Your task to perform on an android device: uninstall "Paramount+ | Peak Streaming" Image 0: 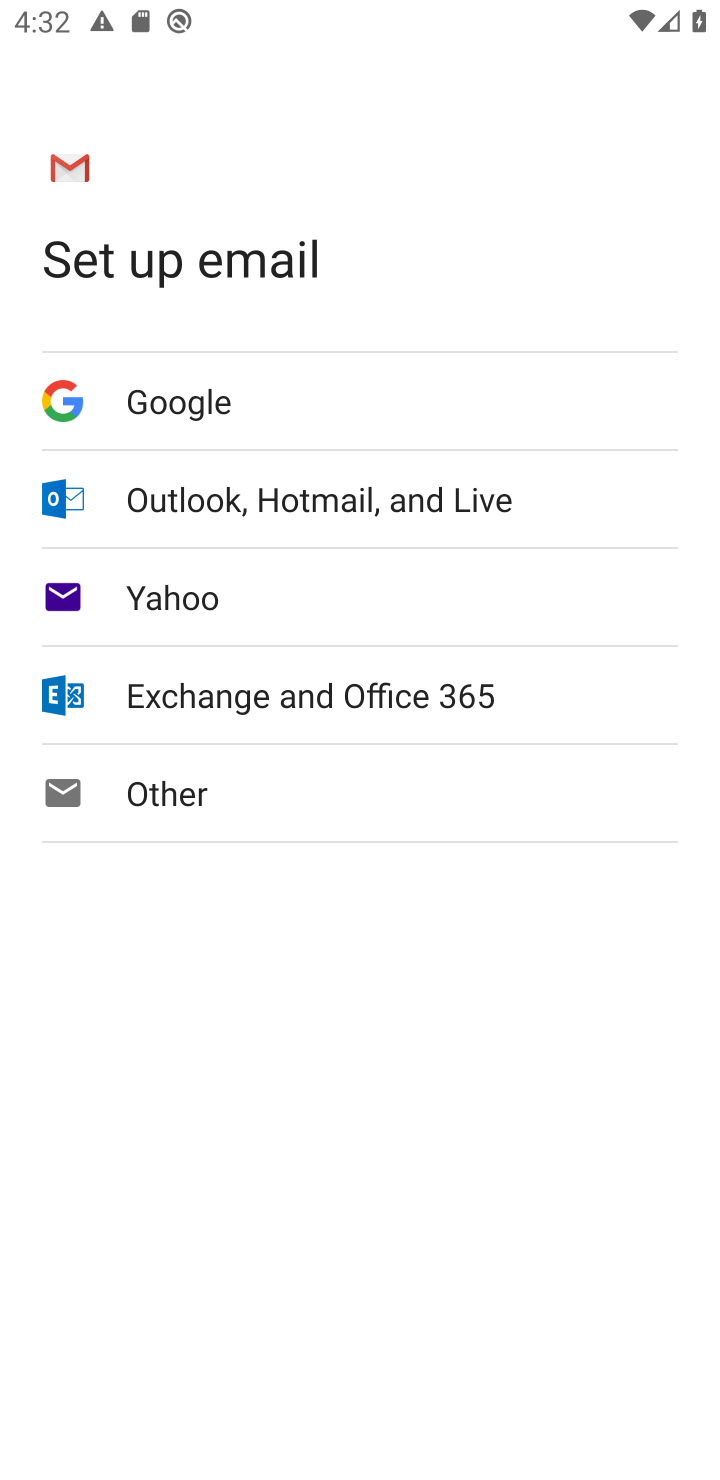
Step 0: press back button
Your task to perform on an android device: uninstall "Paramount+ | Peak Streaming" Image 1: 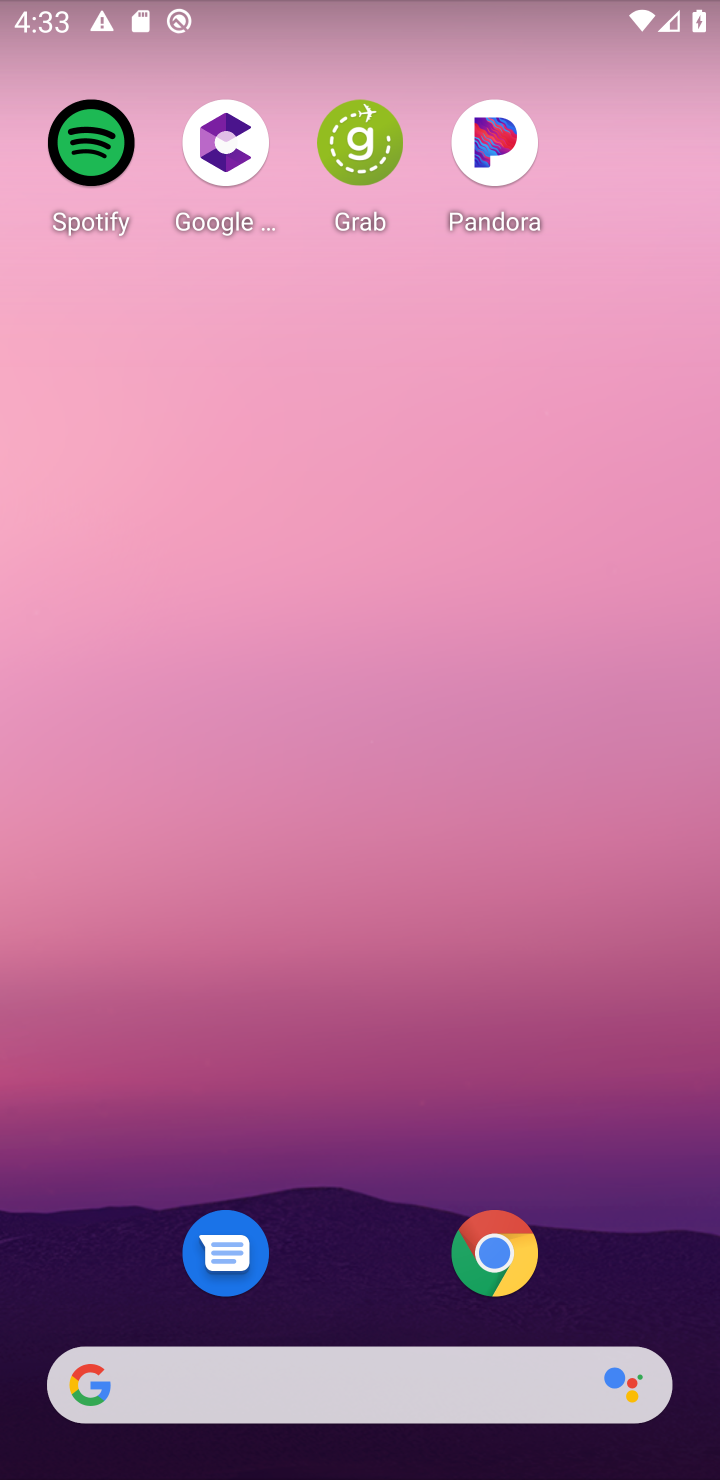
Step 1: drag from (354, 1279) to (525, 230)
Your task to perform on an android device: uninstall "Paramount+ | Peak Streaming" Image 2: 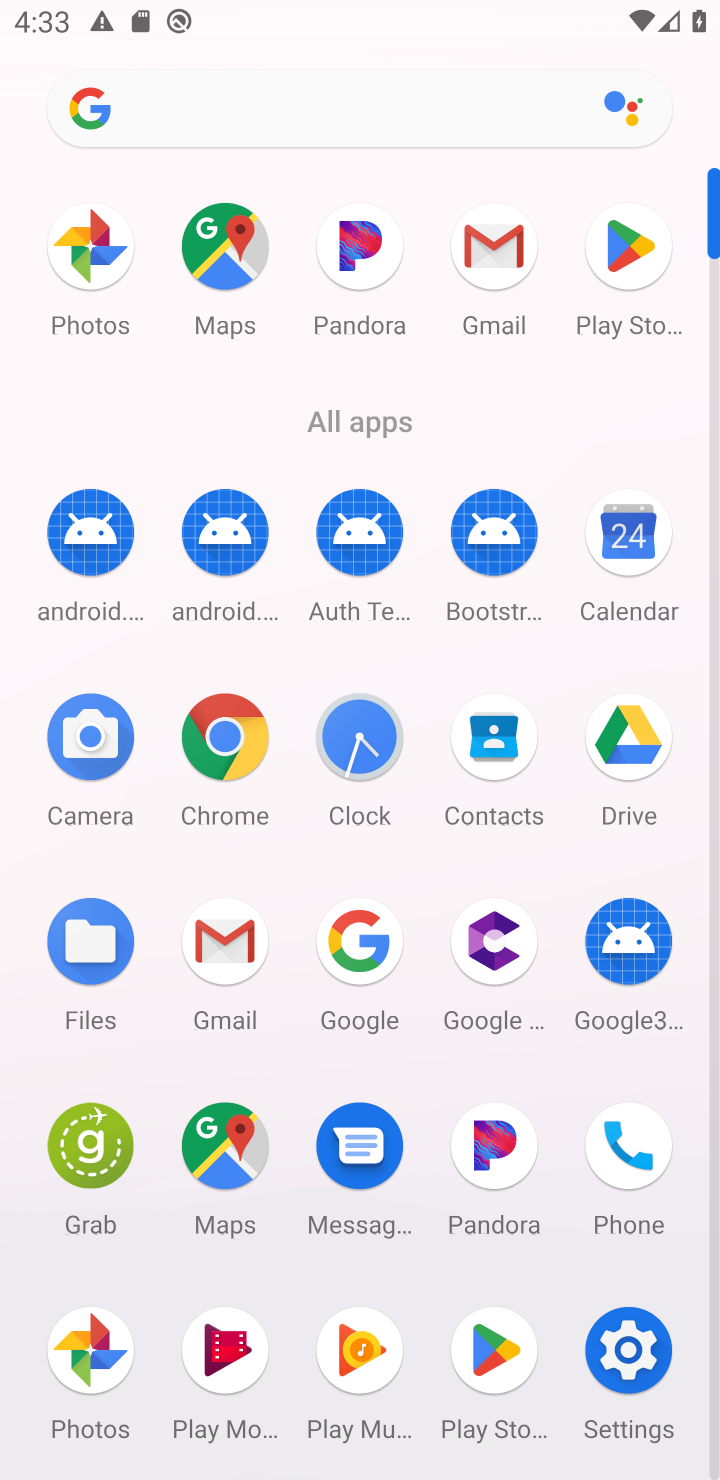
Step 2: click (620, 245)
Your task to perform on an android device: uninstall "Paramount+ | Peak Streaming" Image 3: 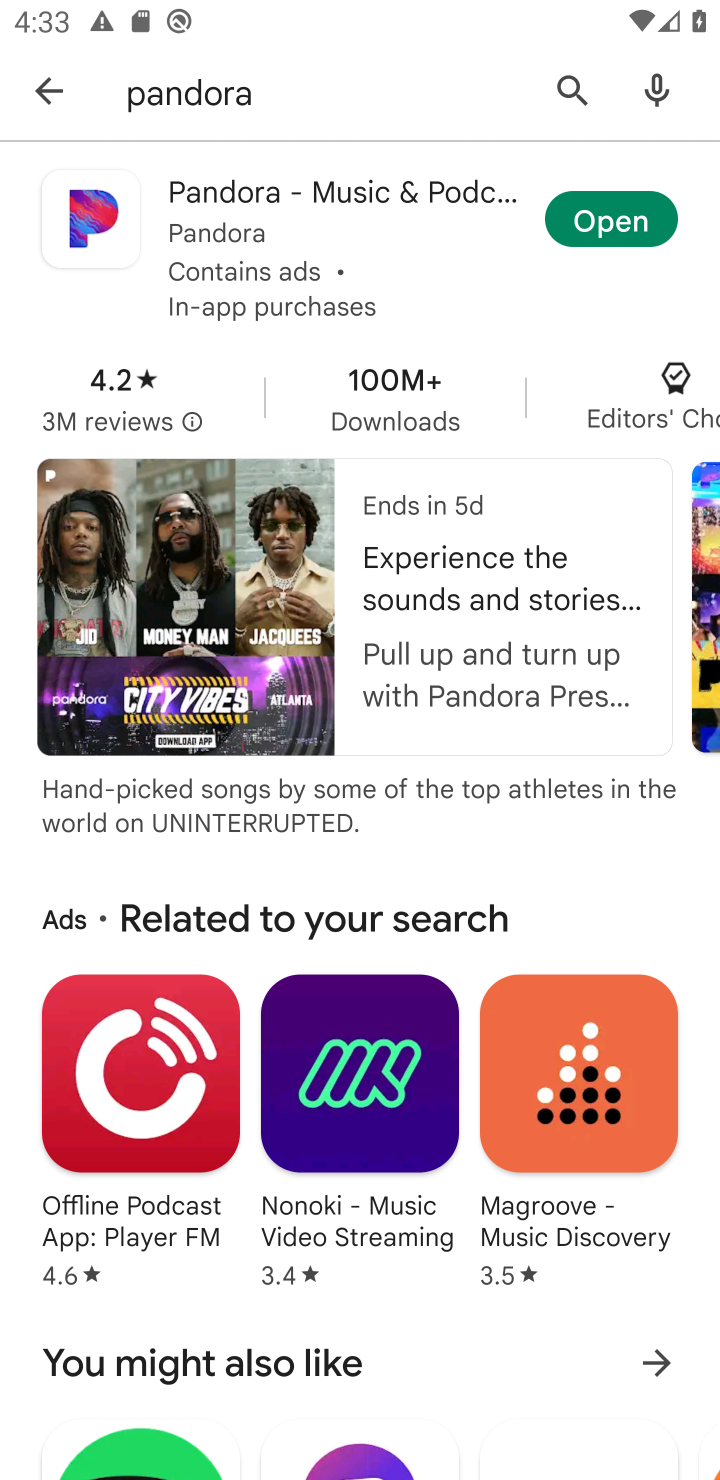
Step 3: click (579, 81)
Your task to perform on an android device: uninstall "Paramount+ | Peak Streaming" Image 4: 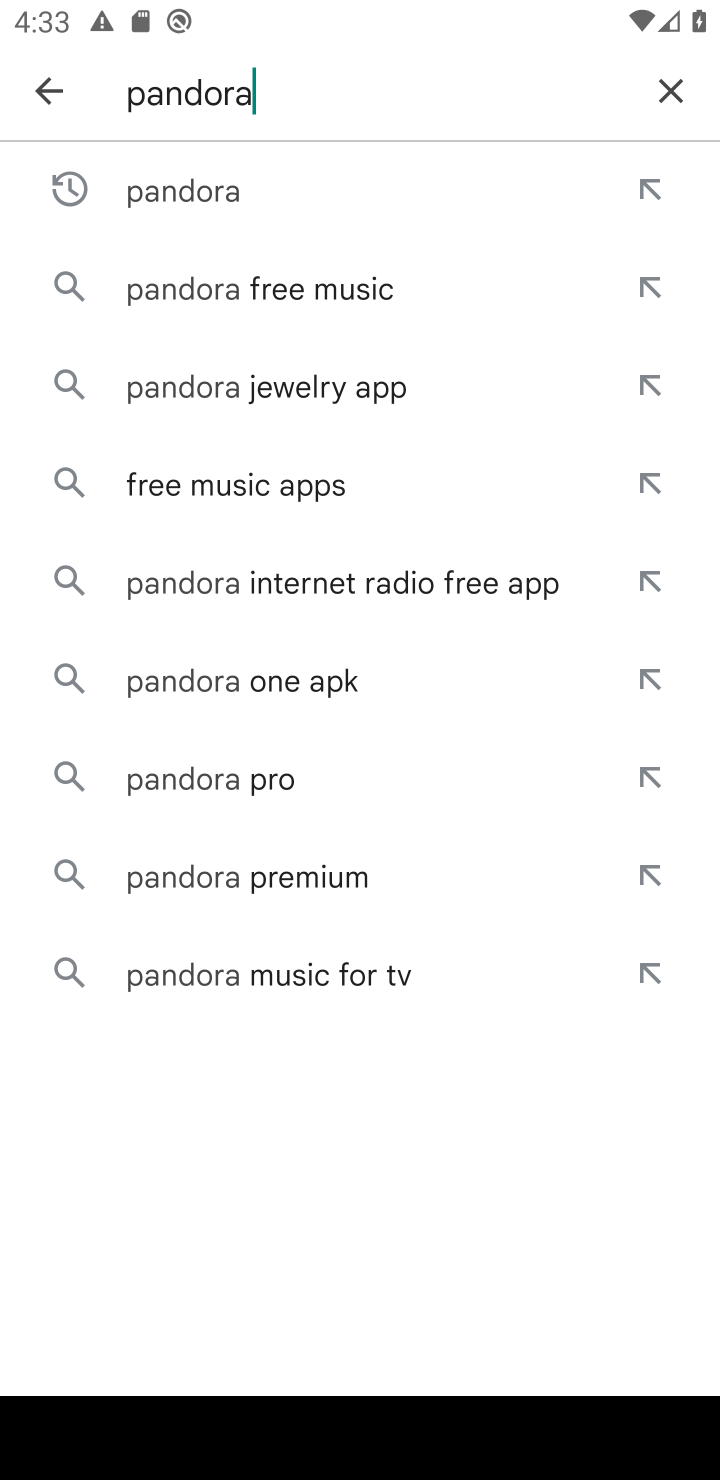
Step 4: click (685, 84)
Your task to perform on an android device: uninstall "Paramount+ | Peak Streaming" Image 5: 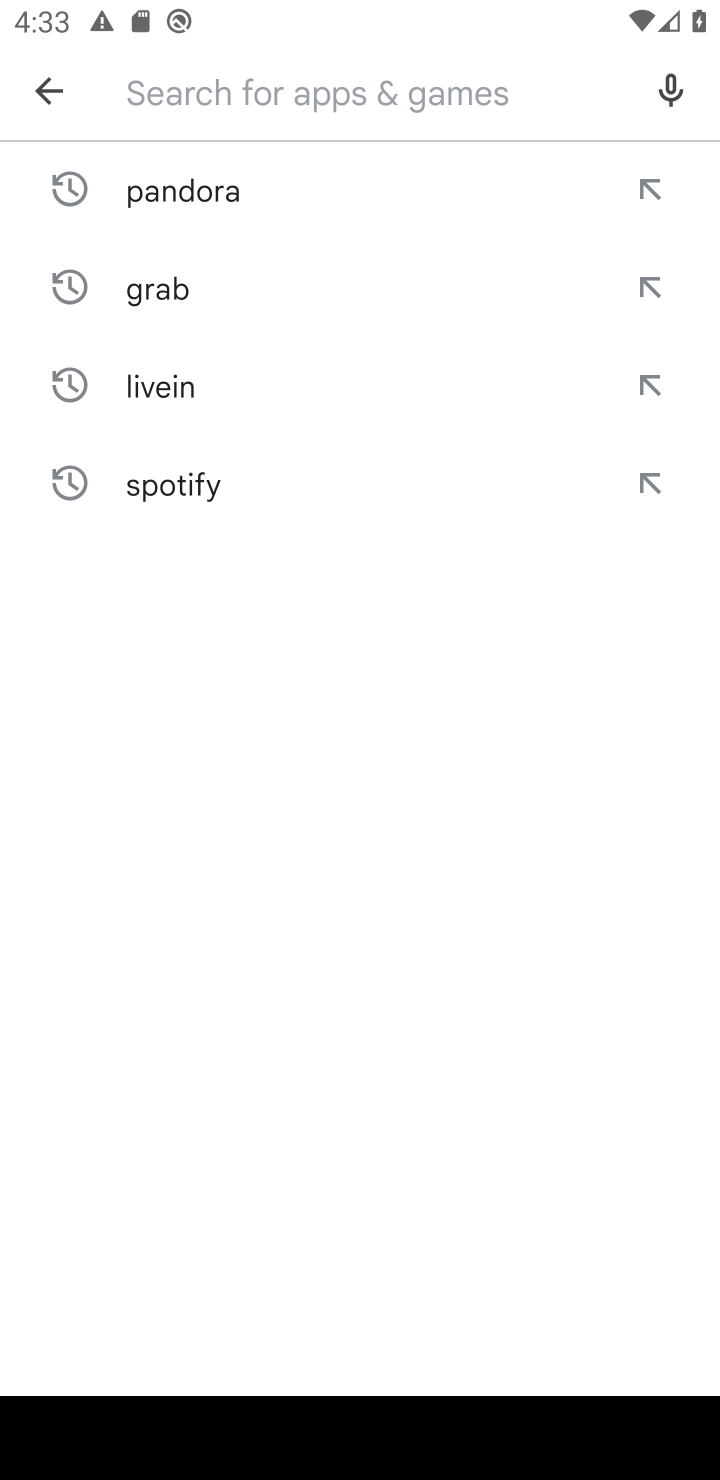
Step 5: click (232, 87)
Your task to perform on an android device: uninstall "Paramount+ | Peak Streaming" Image 6: 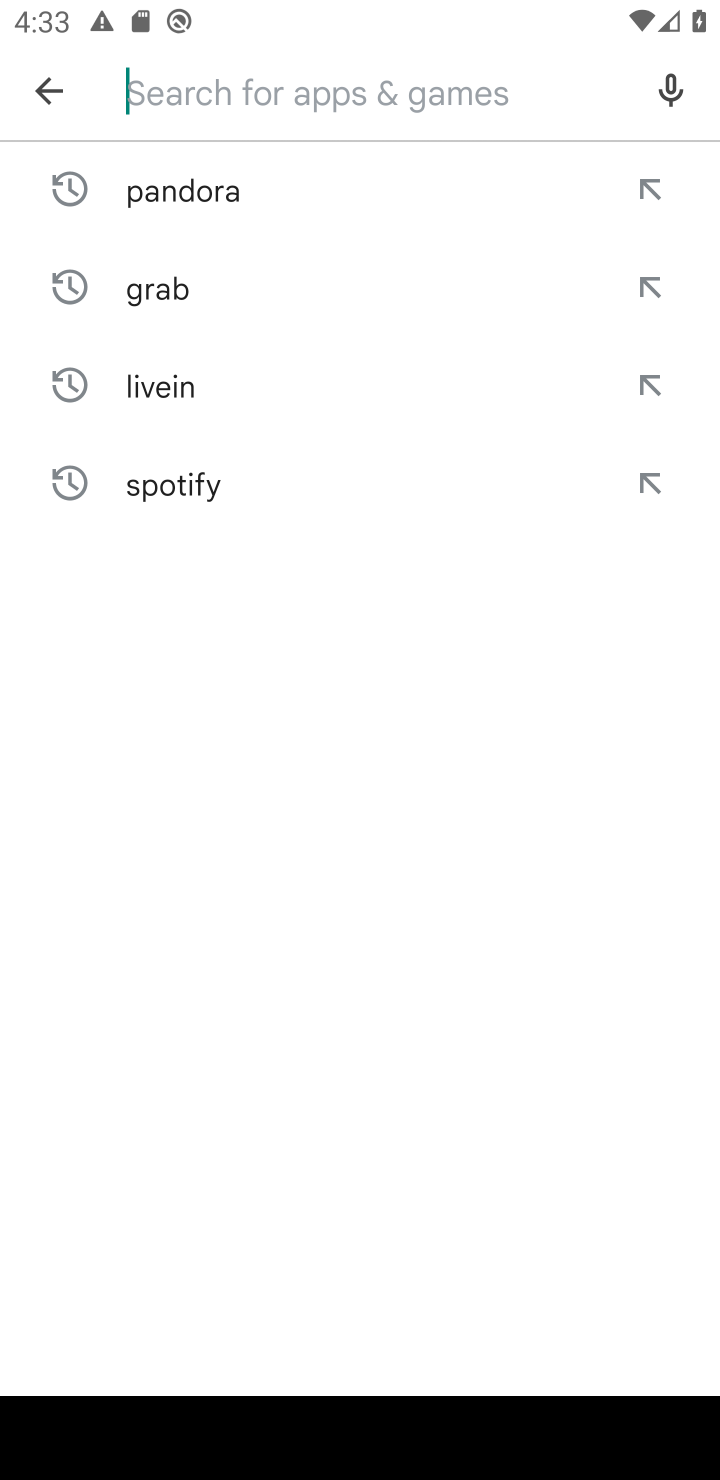
Step 6: type "Paramount+"
Your task to perform on an android device: uninstall "Paramount+ | Peak Streaming" Image 7: 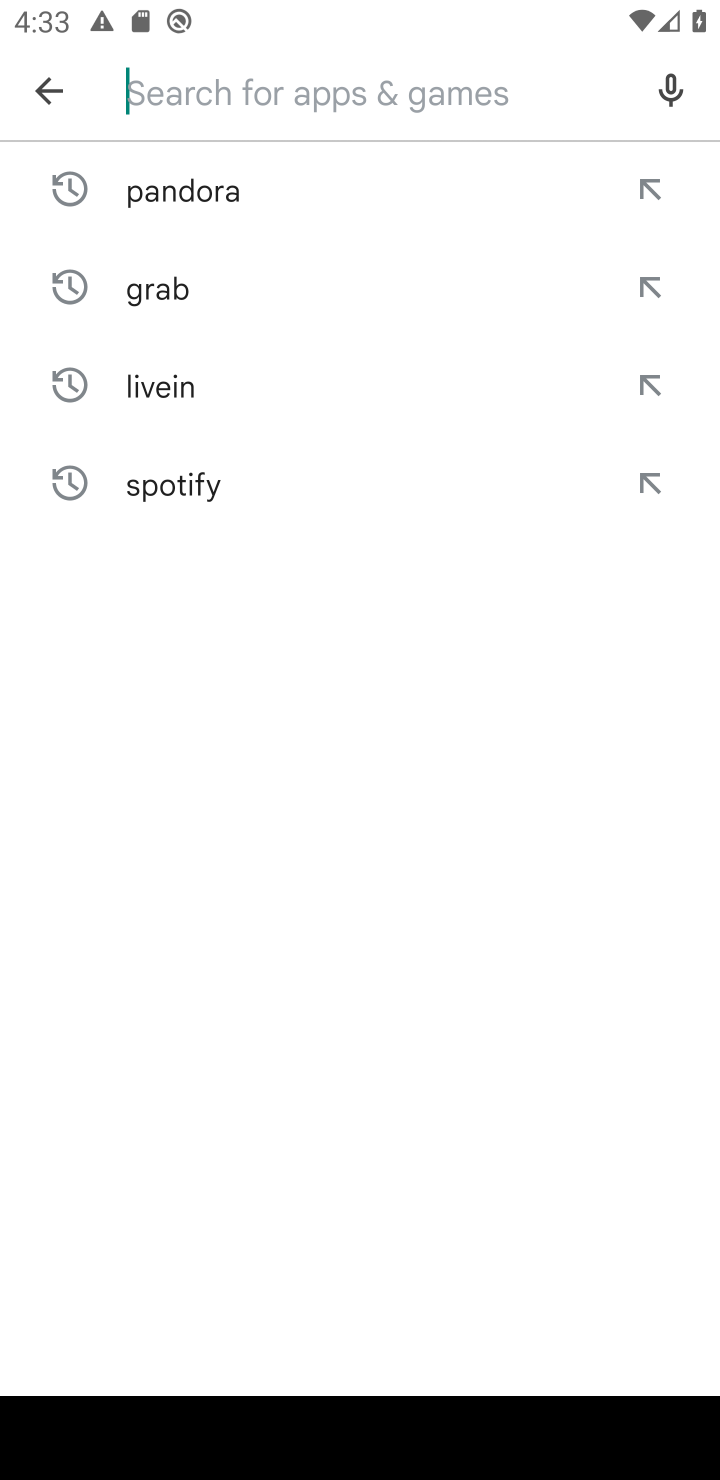
Step 7: click (434, 961)
Your task to perform on an android device: uninstall "Paramount+ | Peak Streaming" Image 8: 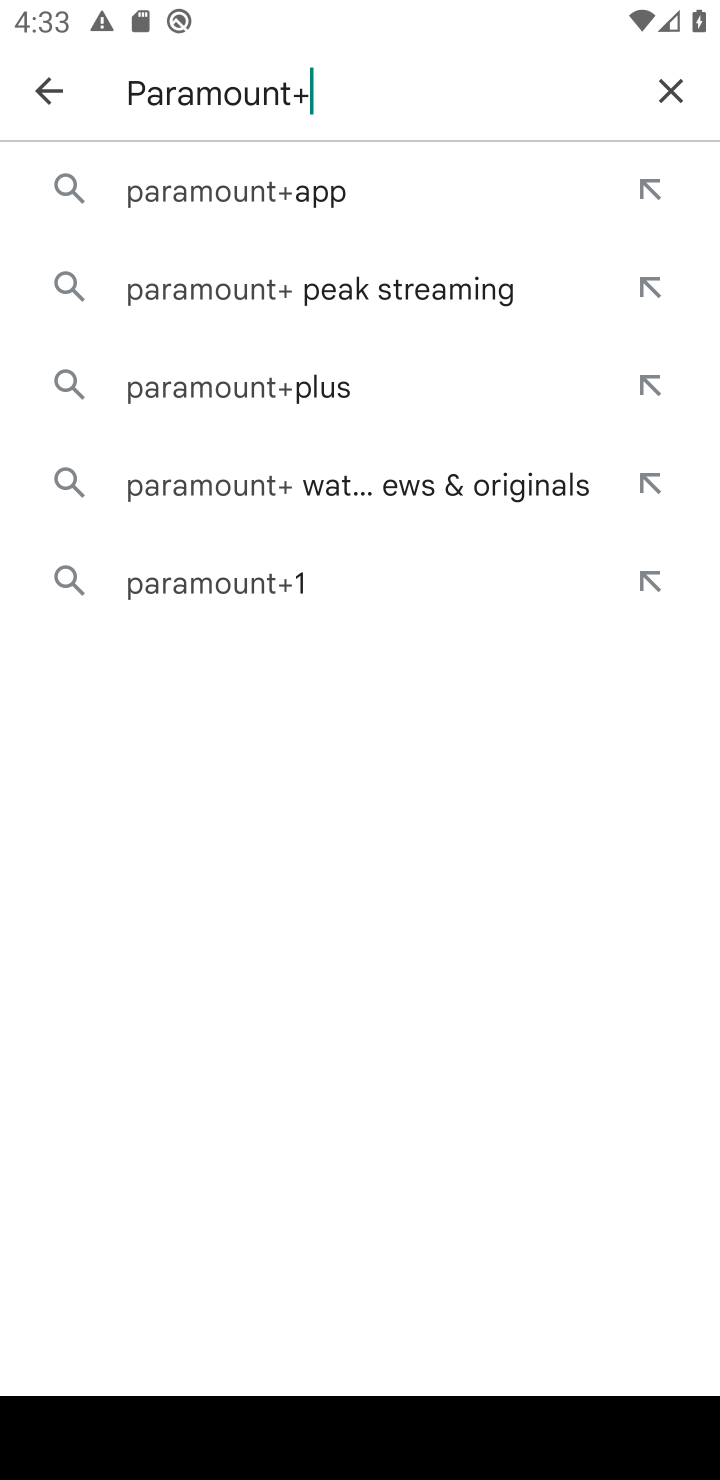
Step 8: click (298, 195)
Your task to perform on an android device: uninstall "Paramount+ | Peak Streaming" Image 9: 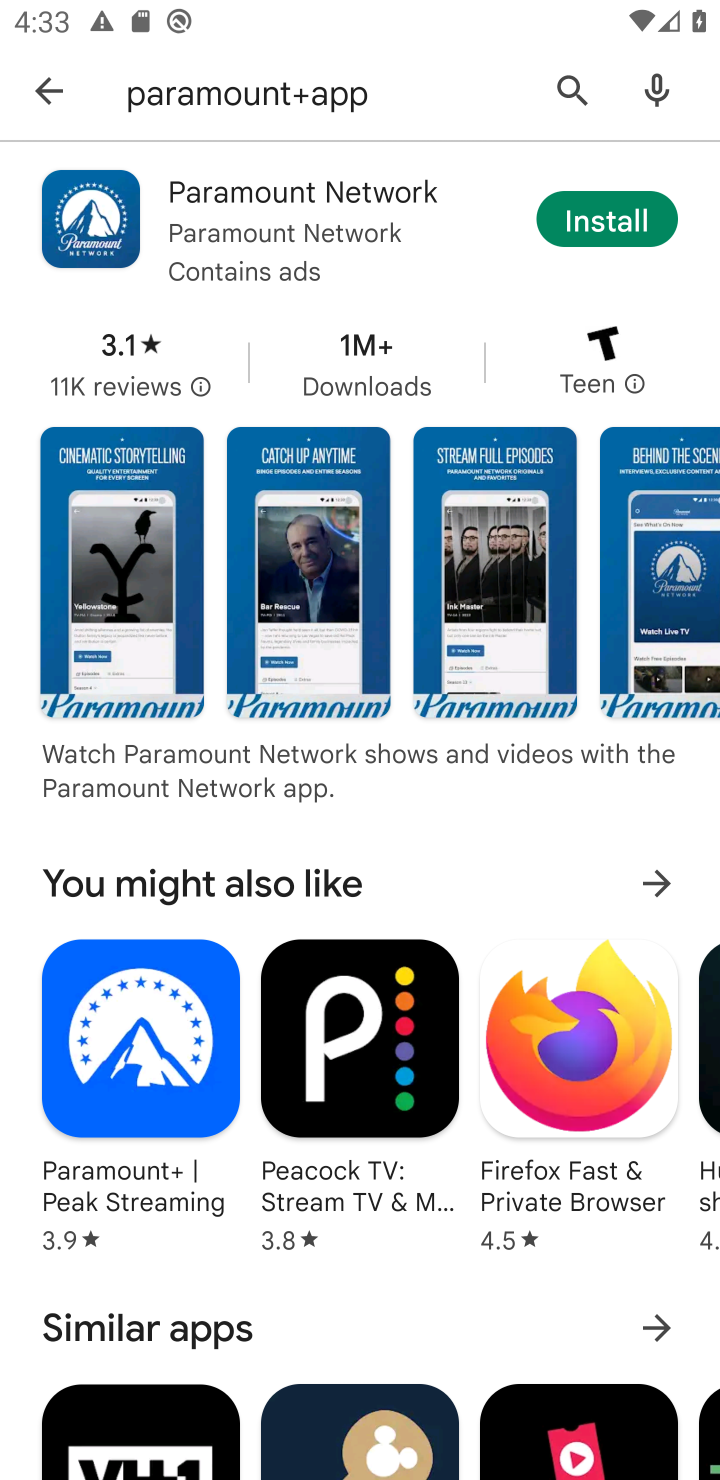
Step 9: task complete